Your task to perform on an android device: Show me recent news Image 0: 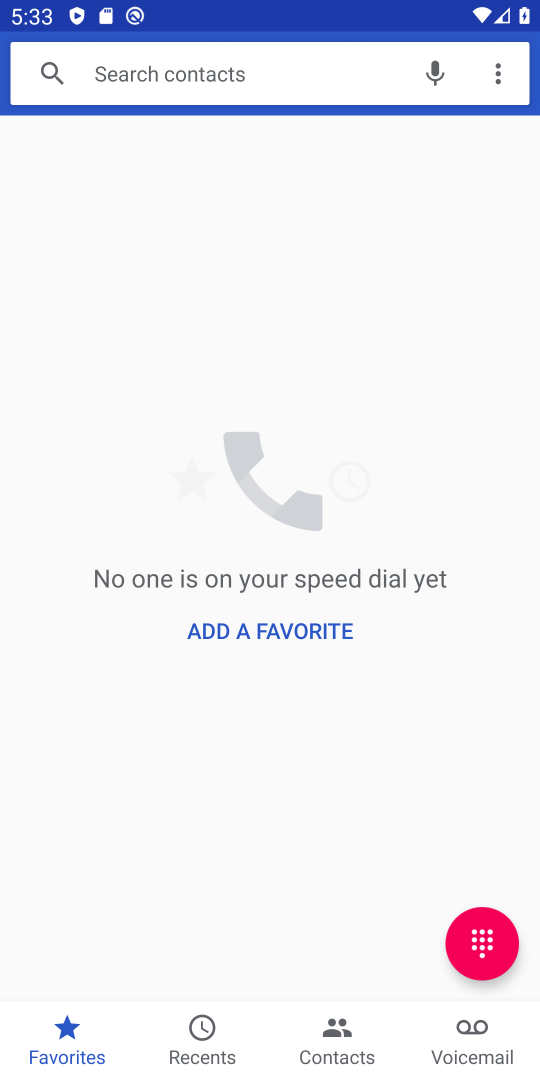
Step 0: press home button
Your task to perform on an android device: Show me recent news Image 1: 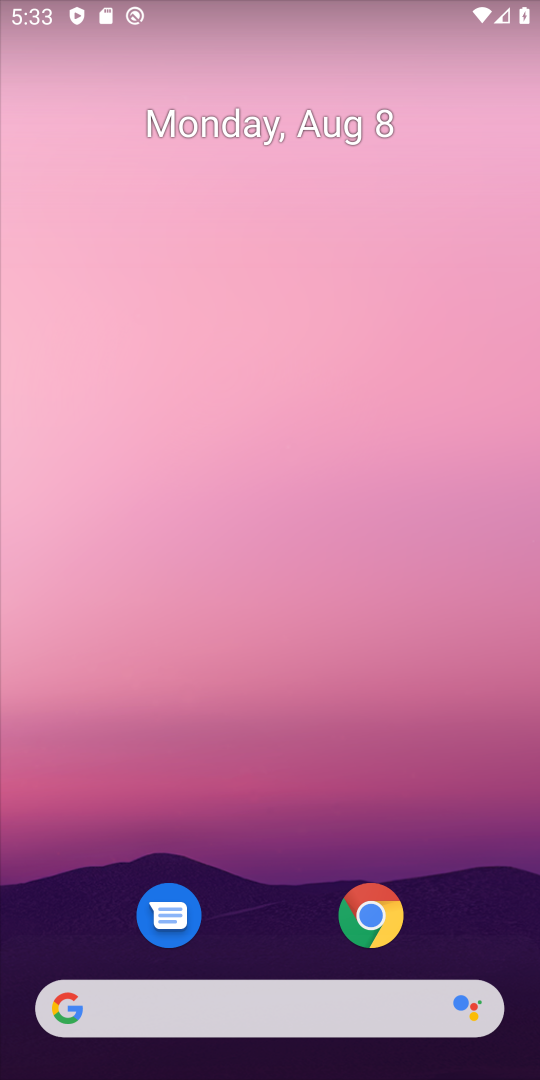
Step 1: drag from (22, 398) to (515, 471)
Your task to perform on an android device: Show me recent news Image 2: 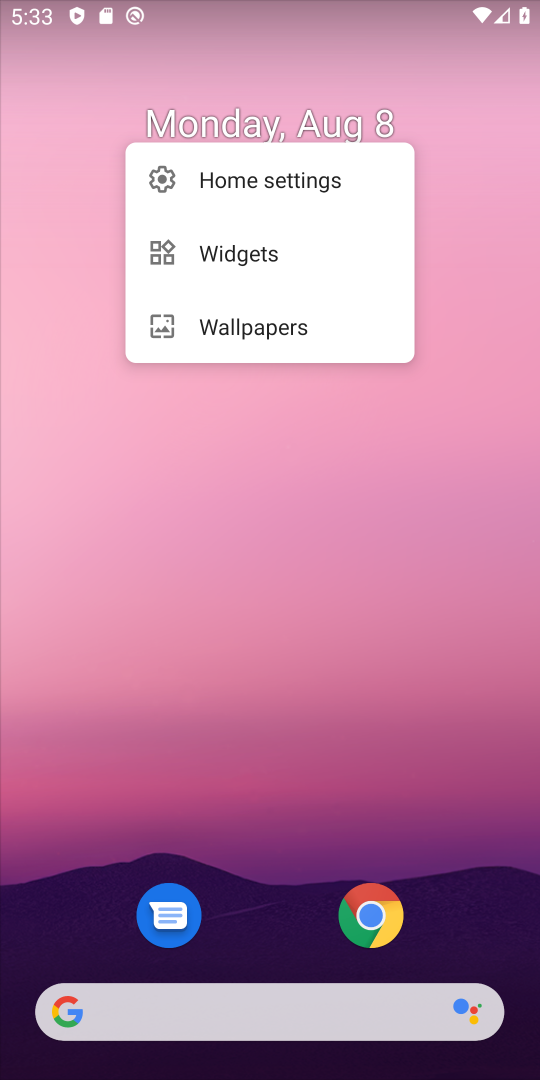
Step 2: click (515, 471)
Your task to perform on an android device: Show me recent news Image 3: 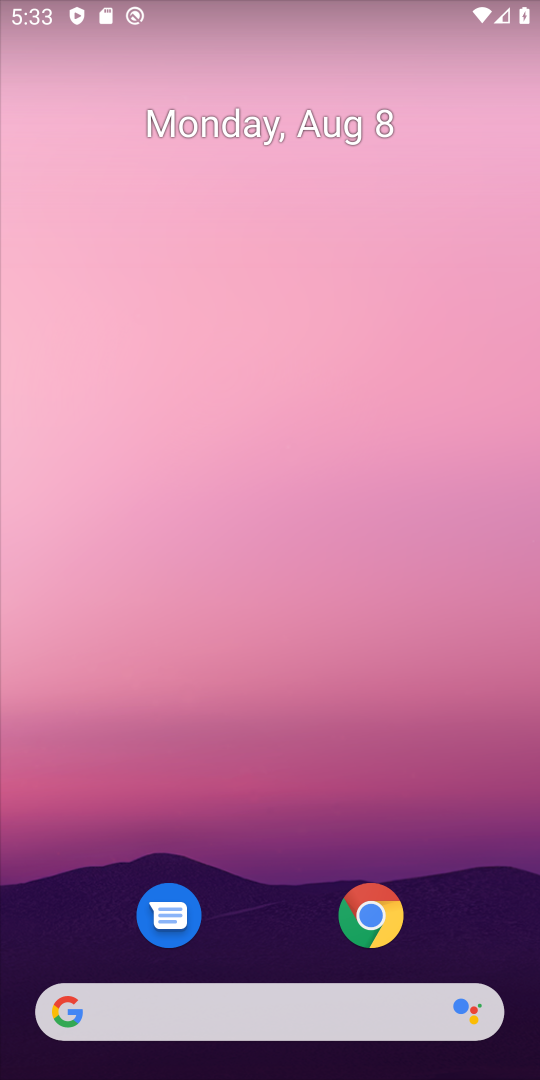
Step 3: drag from (14, 436) to (534, 556)
Your task to perform on an android device: Show me recent news Image 4: 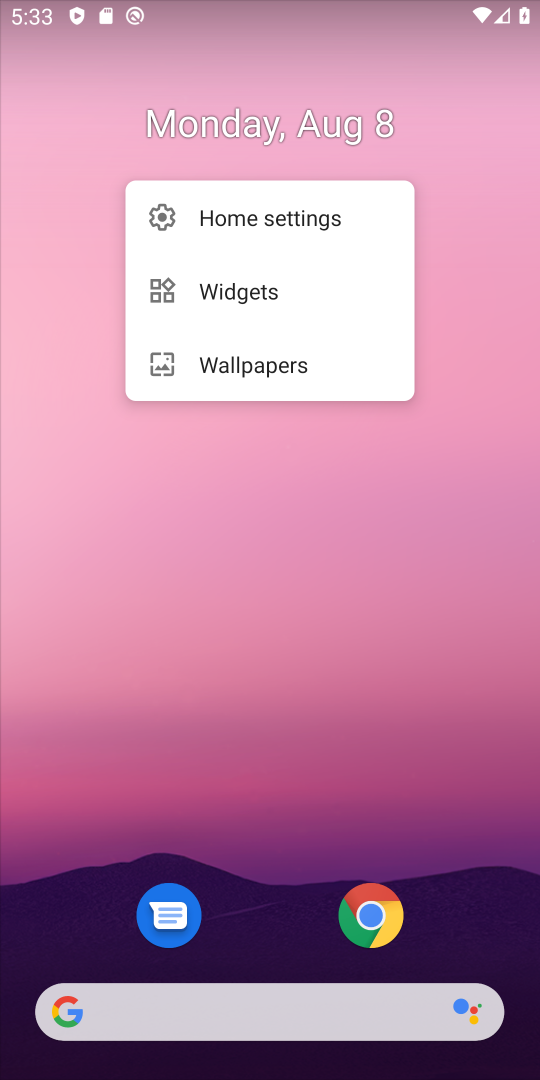
Step 4: click (269, 1010)
Your task to perform on an android device: Show me recent news Image 5: 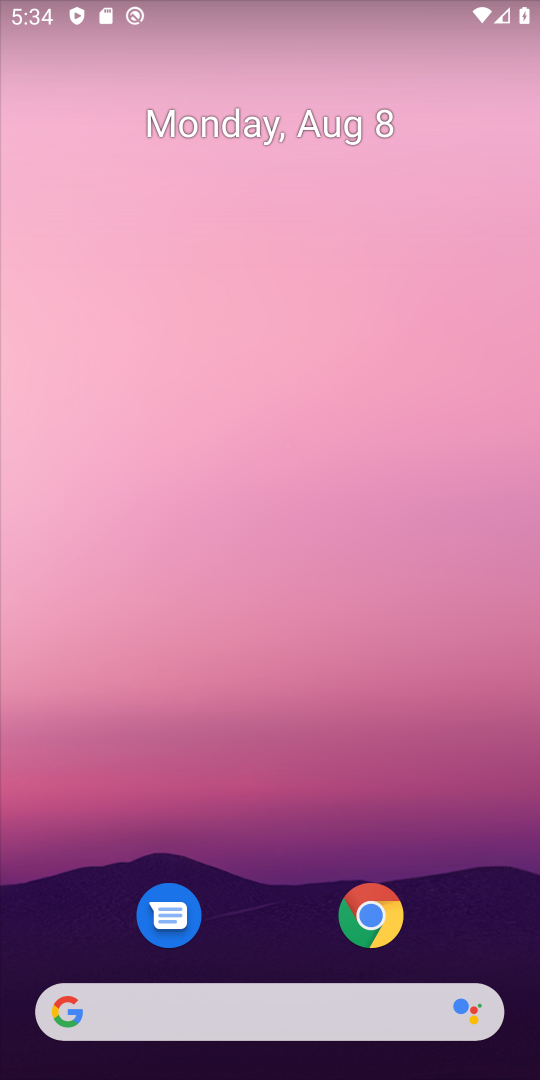
Step 5: click (222, 991)
Your task to perform on an android device: Show me recent news Image 6: 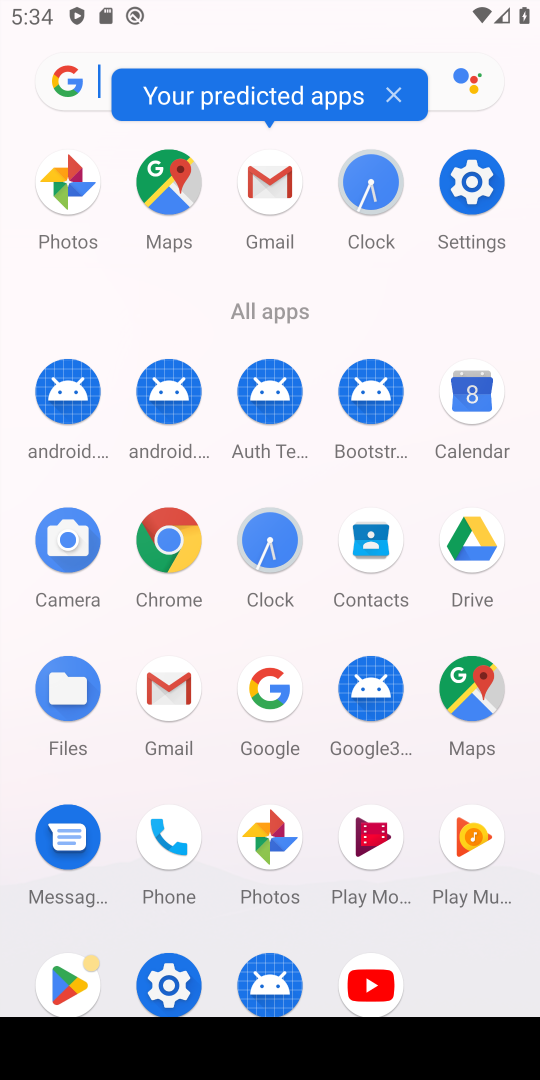
Step 6: click (271, 679)
Your task to perform on an android device: Show me recent news Image 7: 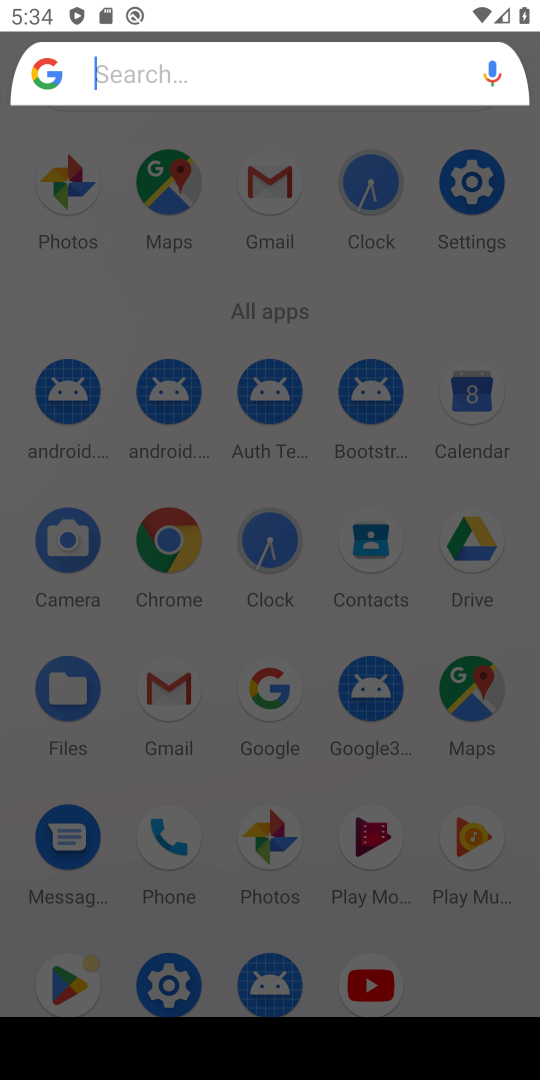
Step 7: click (53, 70)
Your task to perform on an android device: Show me recent news Image 8: 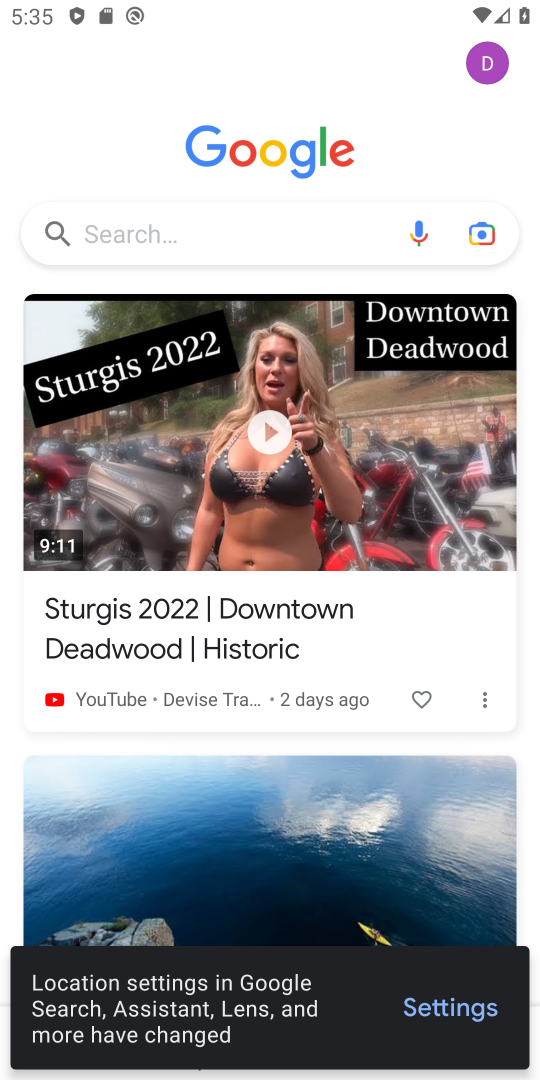
Step 8: task complete